Your task to perform on an android device: Open the web browser Image 0: 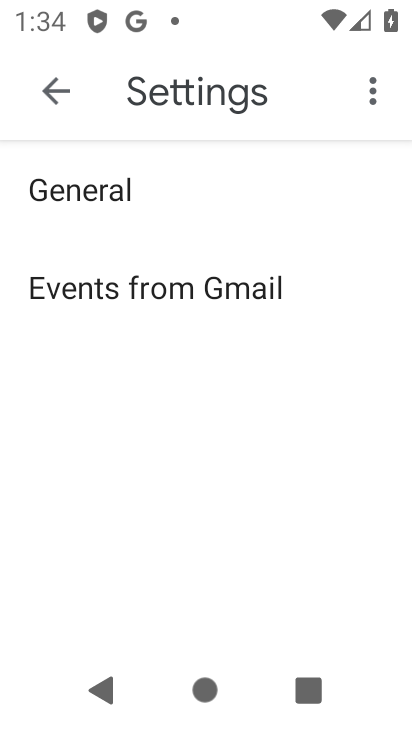
Step 0: press home button
Your task to perform on an android device: Open the web browser Image 1: 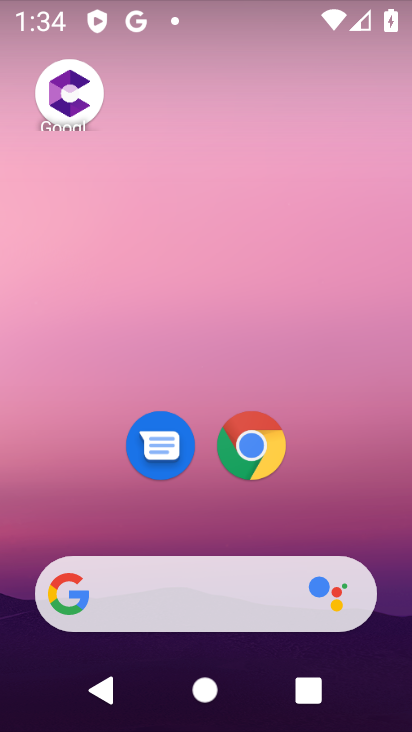
Step 1: click (251, 454)
Your task to perform on an android device: Open the web browser Image 2: 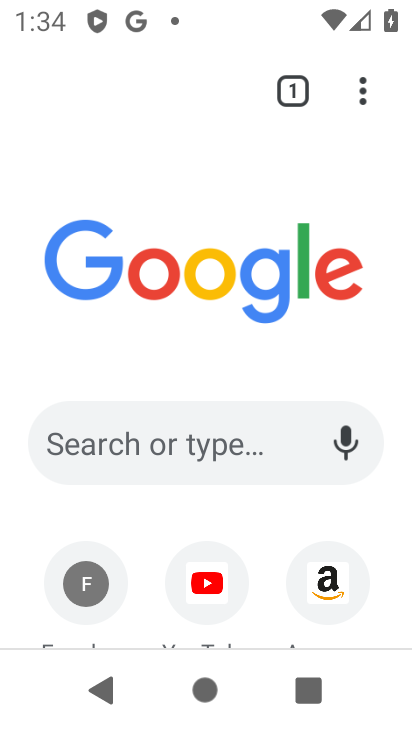
Step 2: task complete